Your task to perform on an android device: set the timer Image 0: 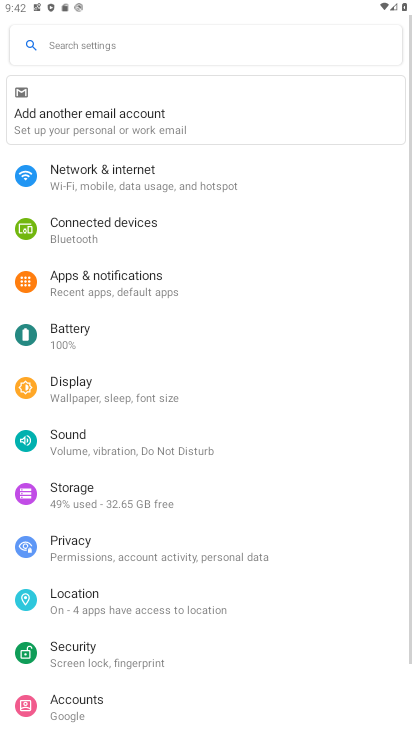
Step 0: press home button
Your task to perform on an android device: set the timer Image 1: 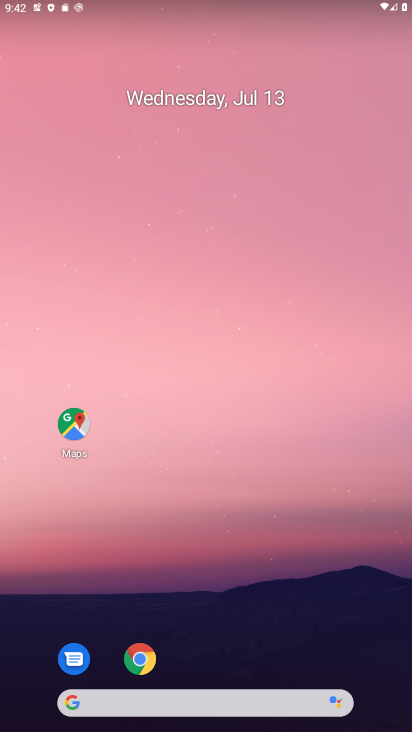
Step 1: drag from (195, 702) to (260, 260)
Your task to perform on an android device: set the timer Image 2: 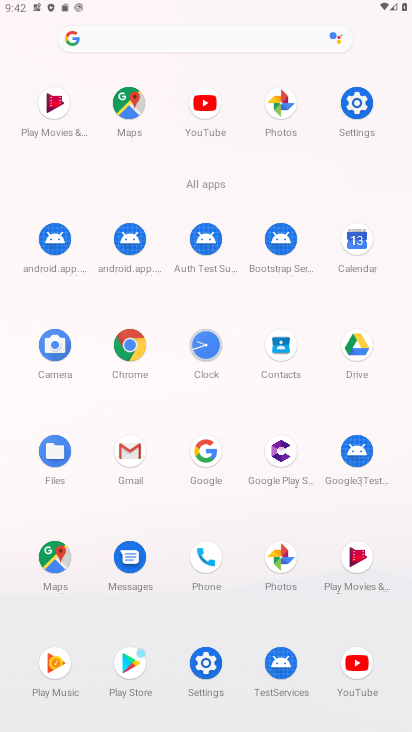
Step 2: click (200, 350)
Your task to perform on an android device: set the timer Image 3: 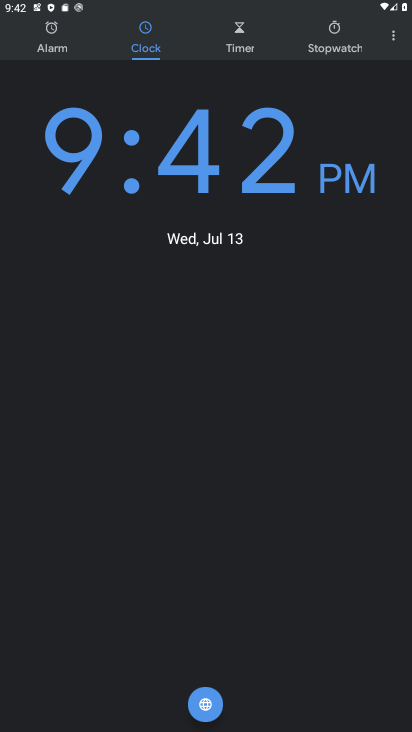
Step 3: click (240, 31)
Your task to perform on an android device: set the timer Image 4: 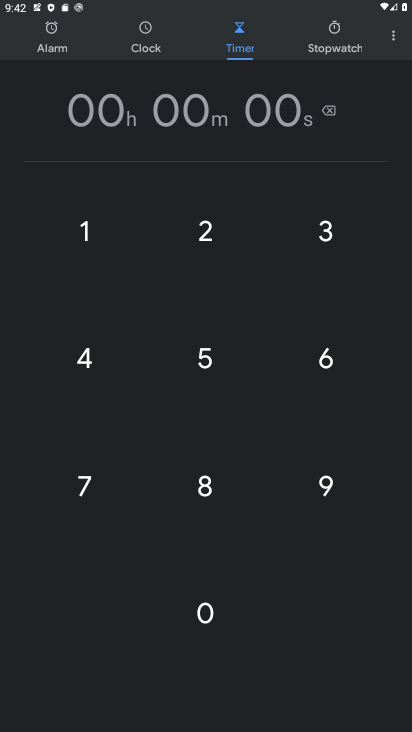
Step 4: click (102, 350)
Your task to perform on an android device: set the timer Image 5: 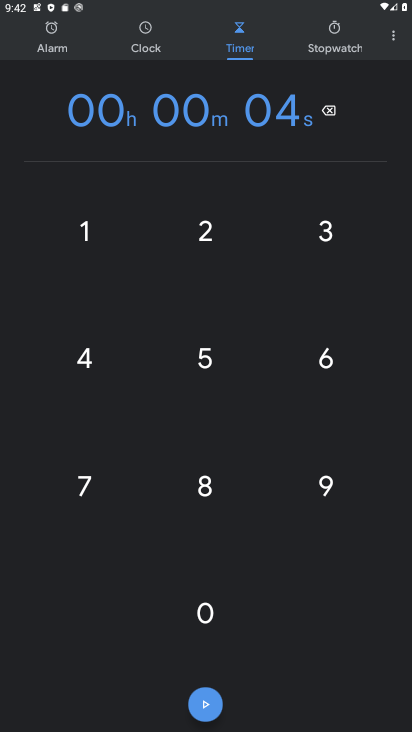
Step 5: click (196, 349)
Your task to perform on an android device: set the timer Image 6: 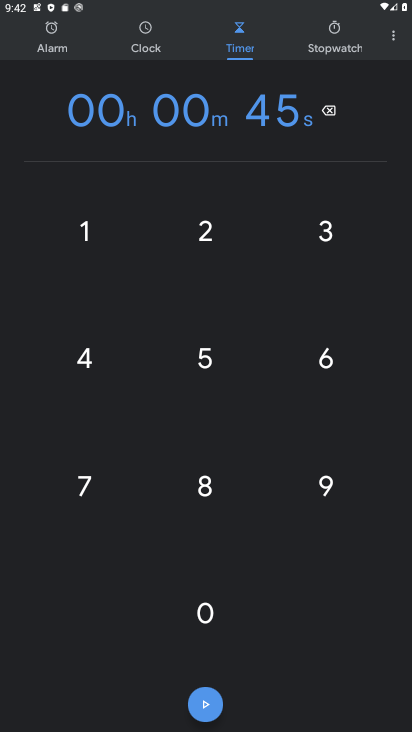
Step 6: click (341, 366)
Your task to perform on an android device: set the timer Image 7: 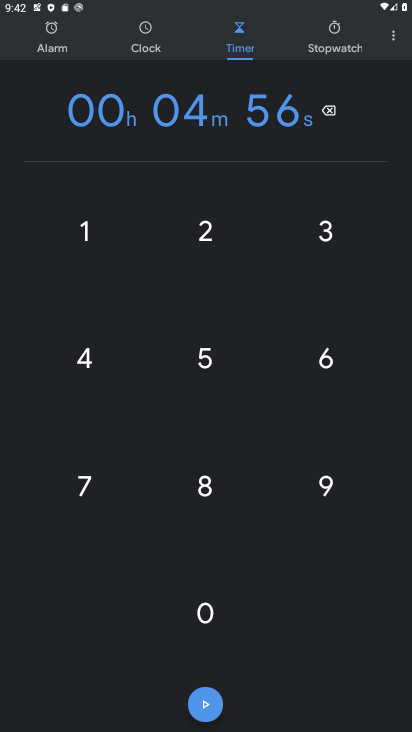
Step 7: click (328, 482)
Your task to perform on an android device: set the timer Image 8: 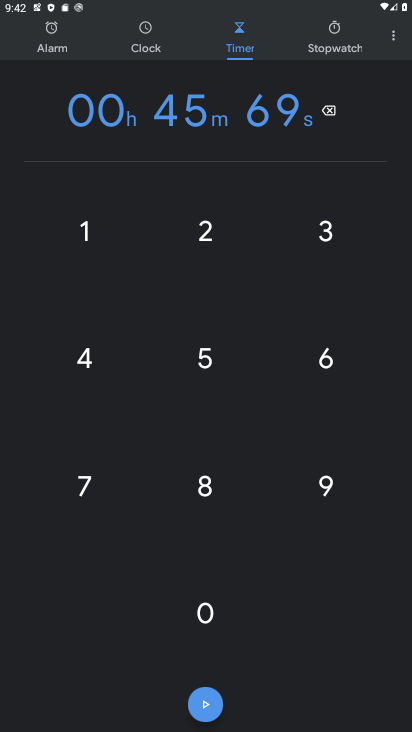
Step 8: click (199, 486)
Your task to perform on an android device: set the timer Image 9: 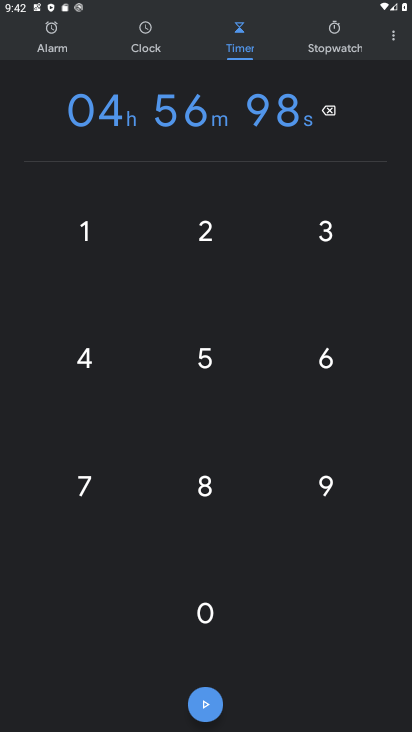
Step 9: click (206, 708)
Your task to perform on an android device: set the timer Image 10: 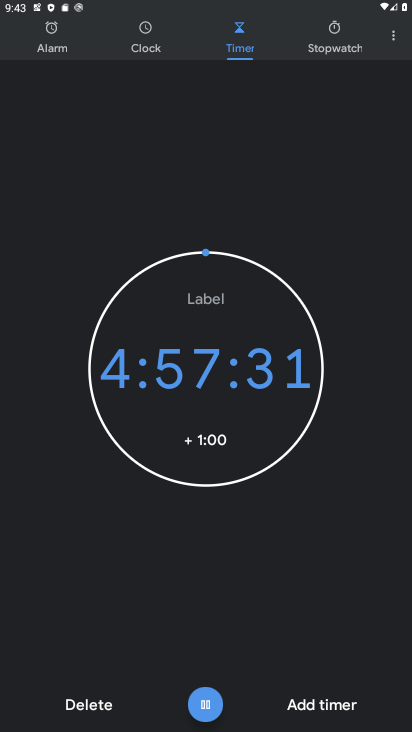
Step 10: click (203, 704)
Your task to perform on an android device: set the timer Image 11: 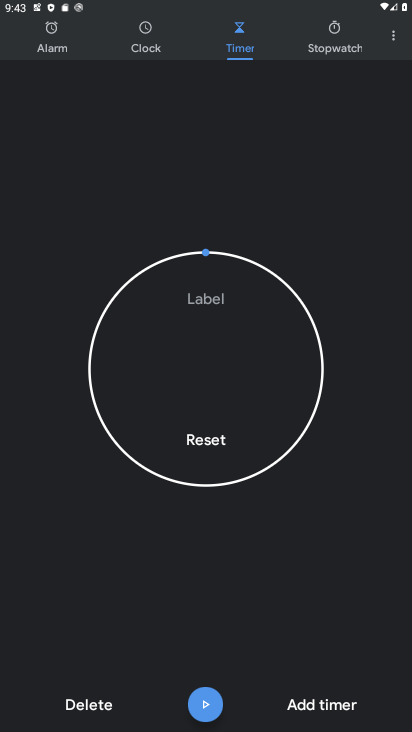
Step 11: task complete